Your task to perform on an android device: empty trash in the gmail app Image 0: 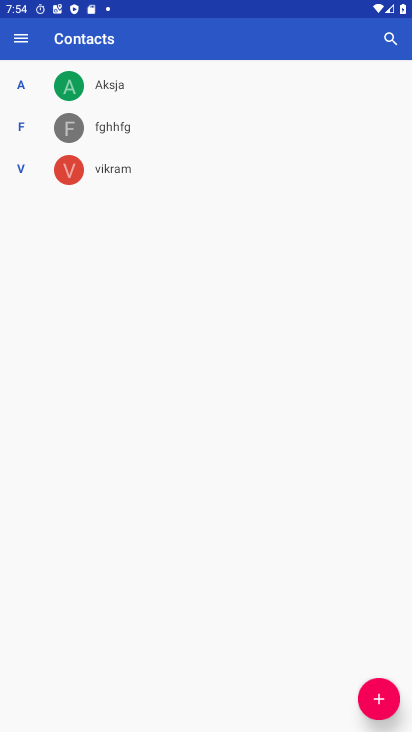
Step 0: press home button
Your task to perform on an android device: empty trash in the gmail app Image 1: 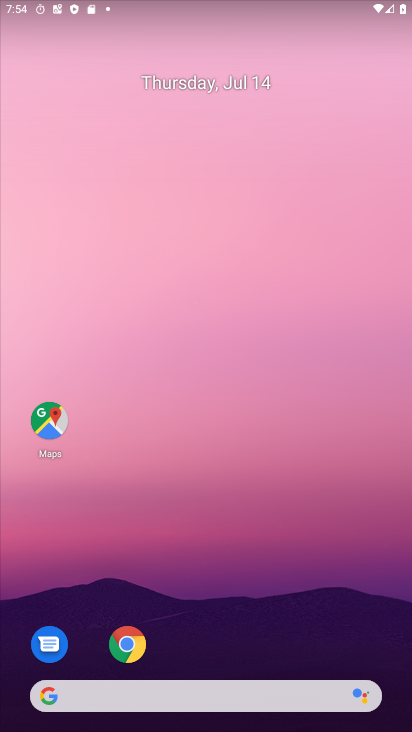
Step 1: drag from (216, 692) to (389, 290)
Your task to perform on an android device: empty trash in the gmail app Image 2: 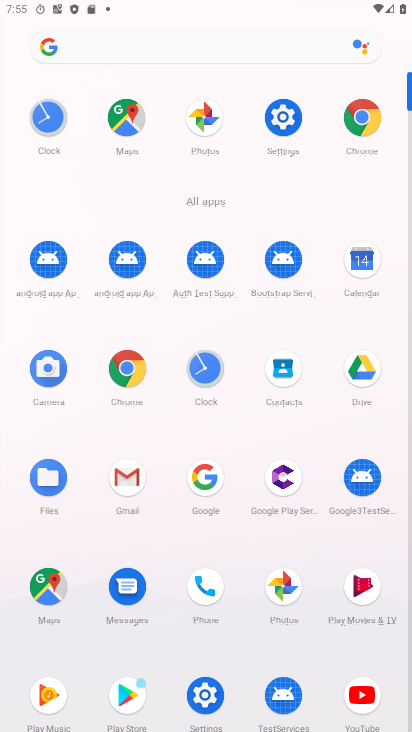
Step 2: click (122, 475)
Your task to perform on an android device: empty trash in the gmail app Image 3: 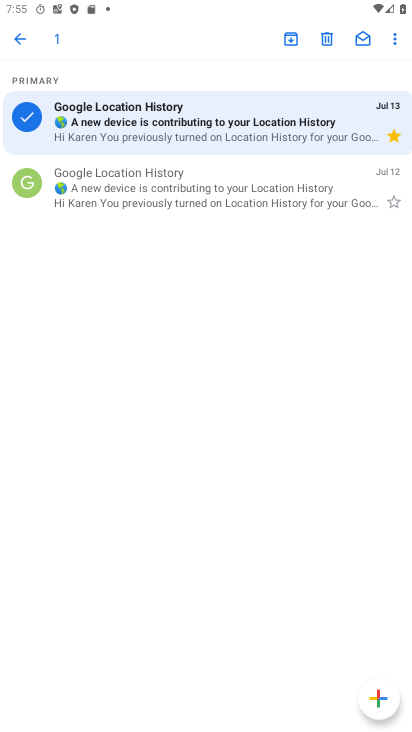
Step 3: click (18, 39)
Your task to perform on an android device: empty trash in the gmail app Image 4: 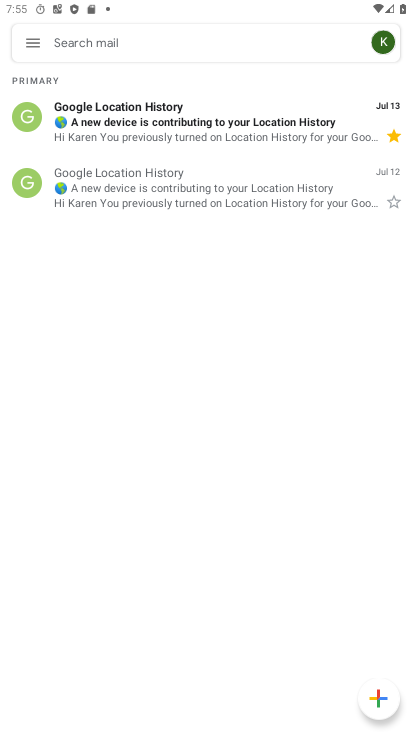
Step 4: click (29, 49)
Your task to perform on an android device: empty trash in the gmail app Image 5: 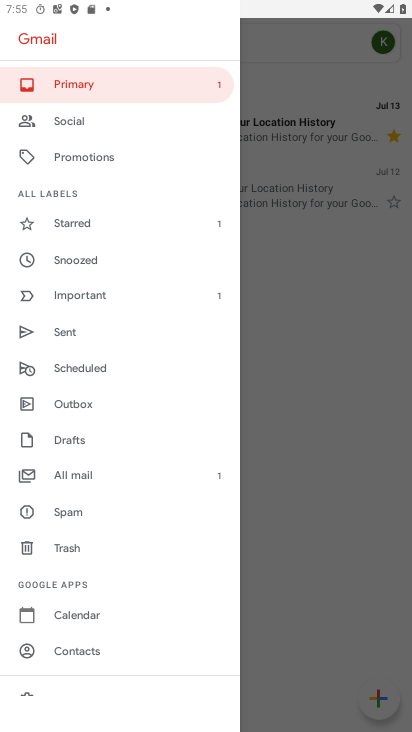
Step 5: click (68, 548)
Your task to perform on an android device: empty trash in the gmail app Image 6: 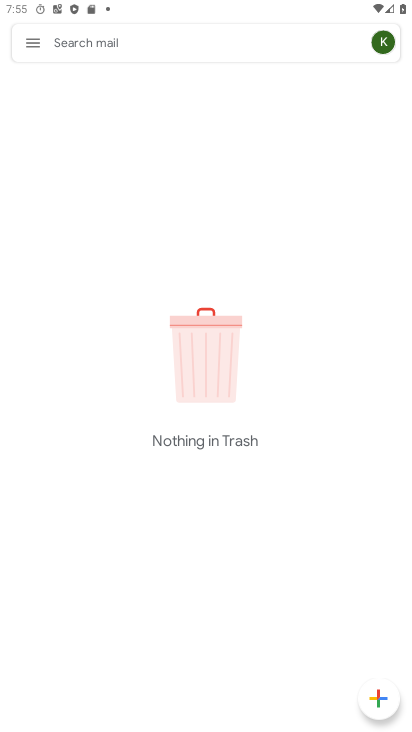
Step 6: task complete